Your task to perform on an android device: open device folders in google photos Image 0: 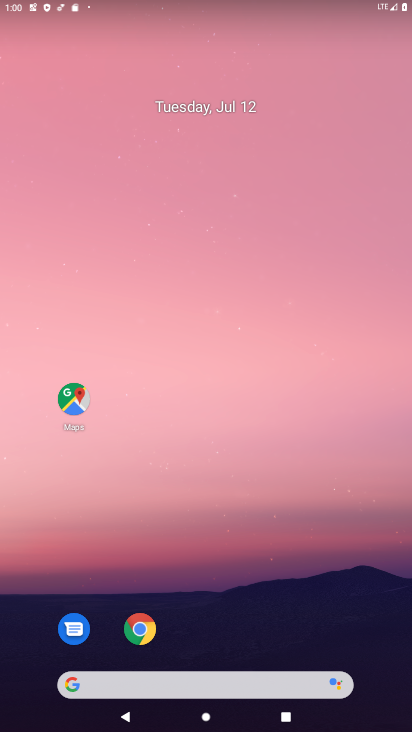
Step 0: drag from (289, 675) to (354, 11)
Your task to perform on an android device: open device folders in google photos Image 1: 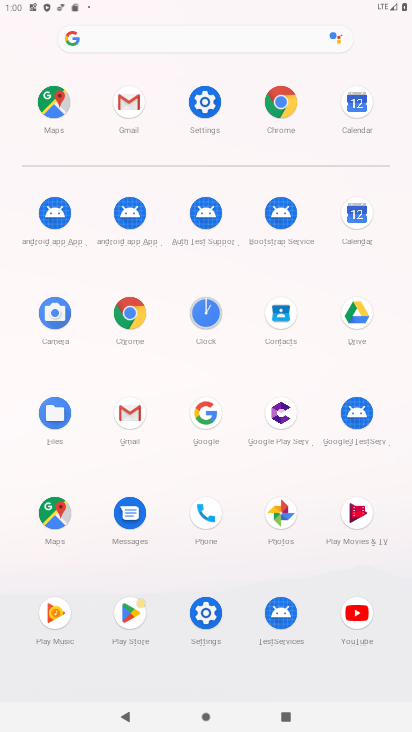
Step 1: click (292, 506)
Your task to perform on an android device: open device folders in google photos Image 2: 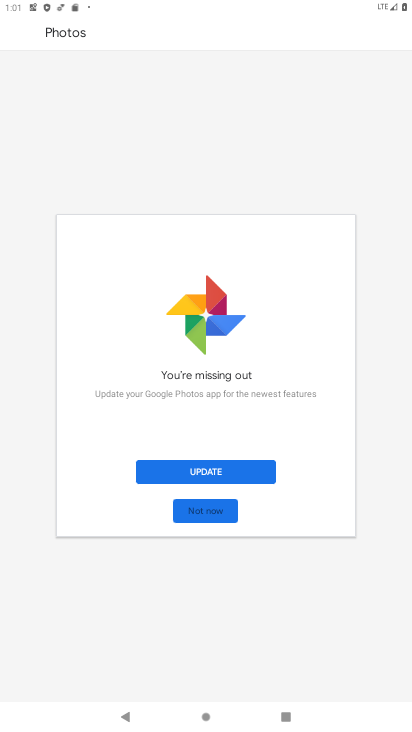
Step 2: click (259, 466)
Your task to perform on an android device: open device folders in google photos Image 3: 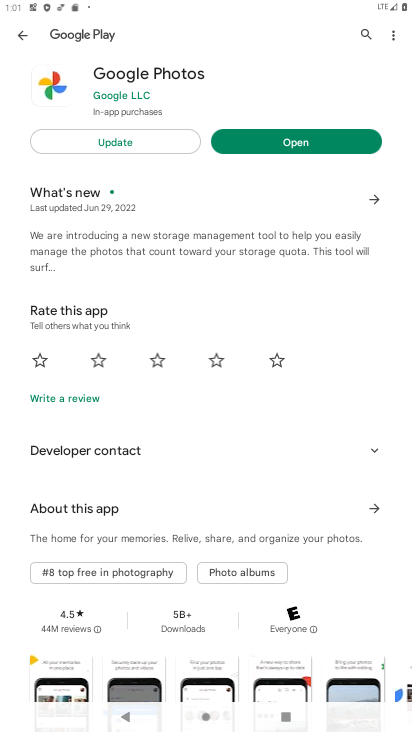
Step 3: click (145, 137)
Your task to perform on an android device: open device folders in google photos Image 4: 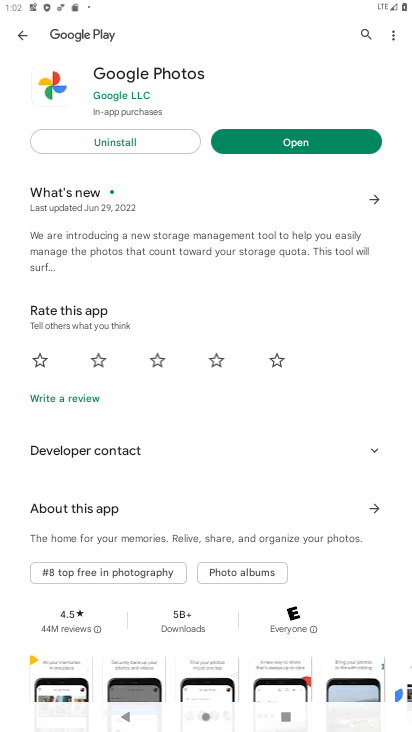
Step 4: click (323, 134)
Your task to perform on an android device: open device folders in google photos Image 5: 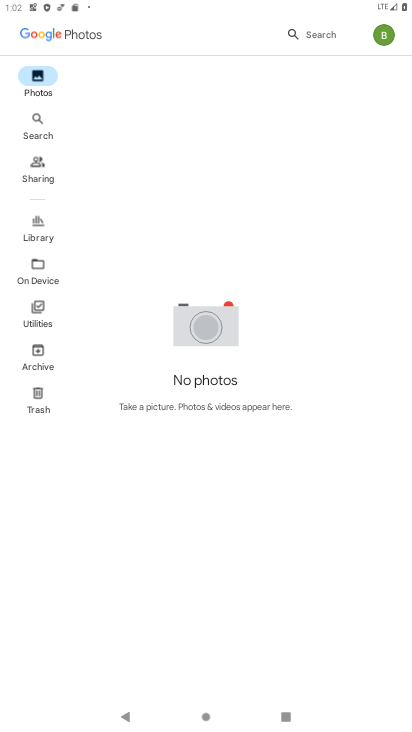
Step 5: click (40, 274)
Your task to perform on an android device: open device folders in google photos Image 6: 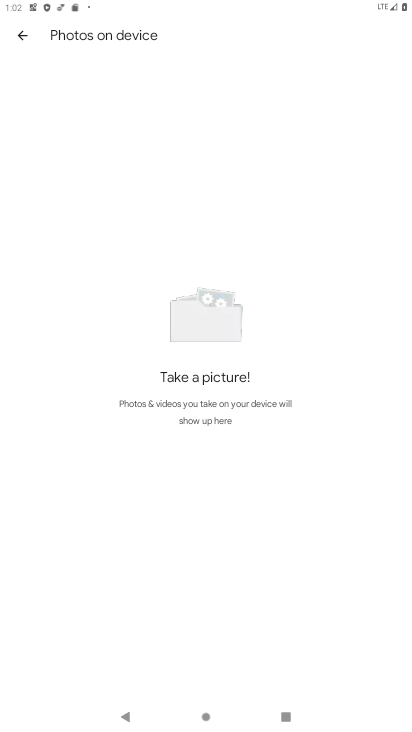
Step 6: task complete